Your task to perform on an android device: install app "Spotify" Image 0: 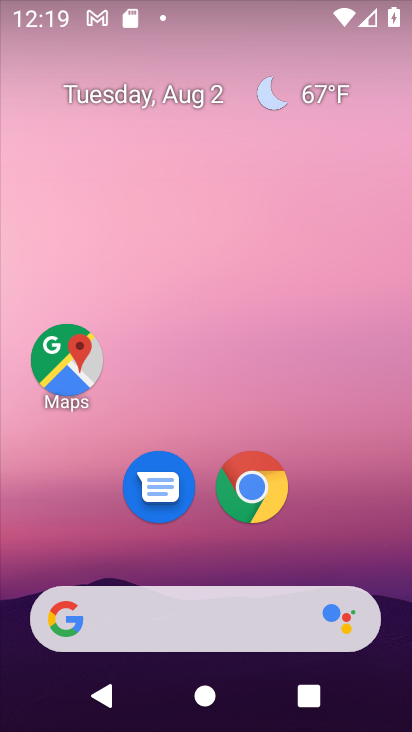
Step 0: drag from (224, 626) to (293, 28)
Your task to perform on an android device: install app "Spotify" Image 1: 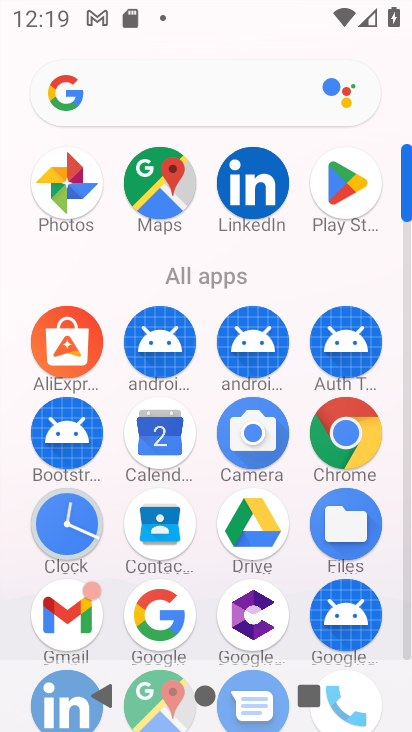
Step 1: click (339, 207)
Your task to perform on an android device: install app "Spotify" Image 2: 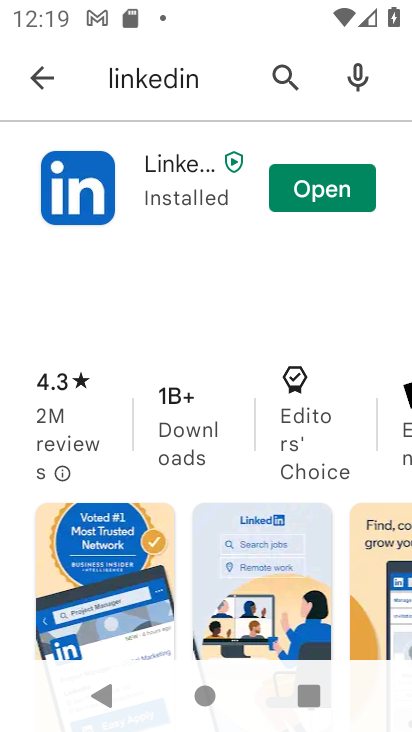
Step 2: click (45, 79)
Your task to perform on an android device: install app "Spotify" Image 3: 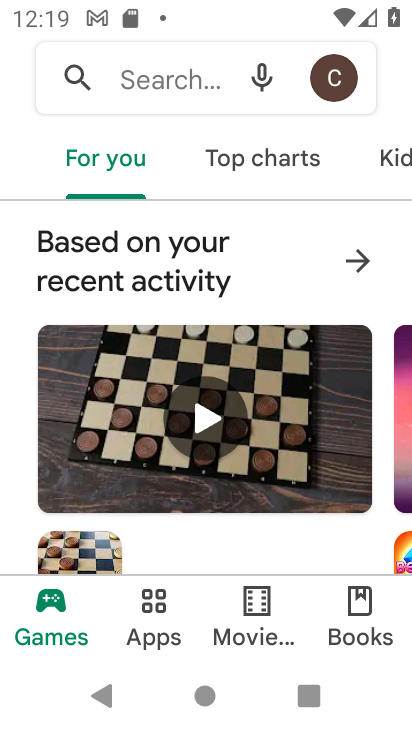
Step 3: click (84, 79)
Your task to perform on an android device: install app "Spotify" Image 4: 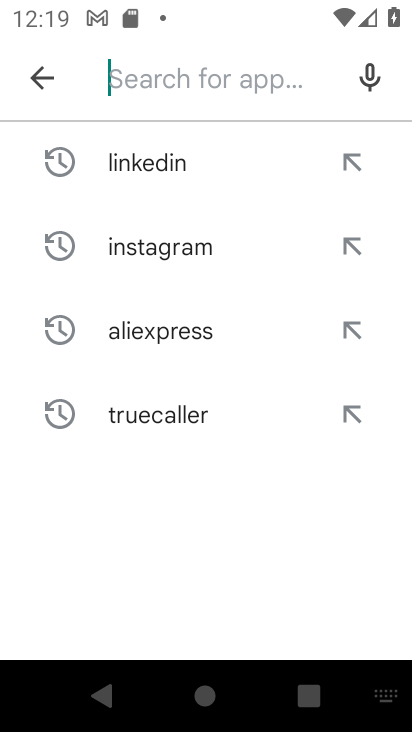
Step 4: type "Spotify"
Your task to perform on an android device: install app "Spotify" Image 5: 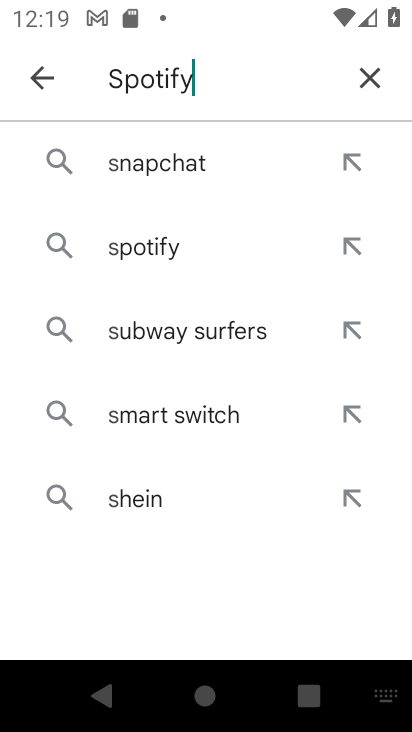
Step 5: type ""
Your task to perform on an android device: install app "Spotify" Image 6: 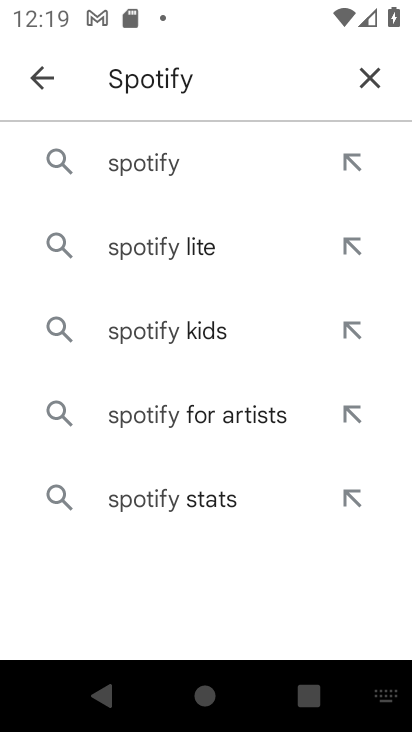
Step 6: click (206, 172)
Your task to perform on an android device: install app "Spotify" Image 7: 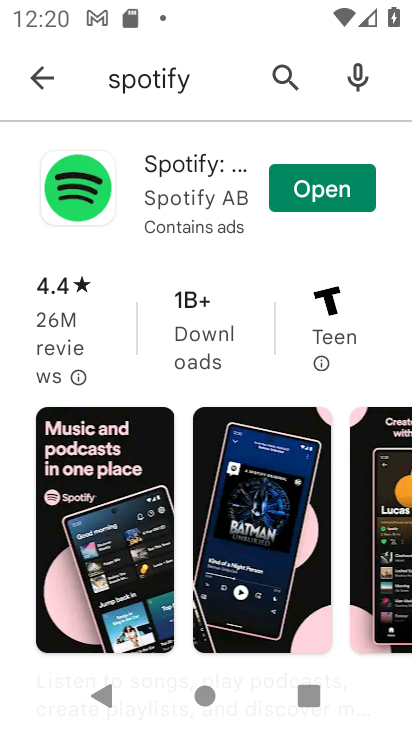
Step 7: task complete